Your task to perform on an android device: turn on improve location accuracy Image 0: 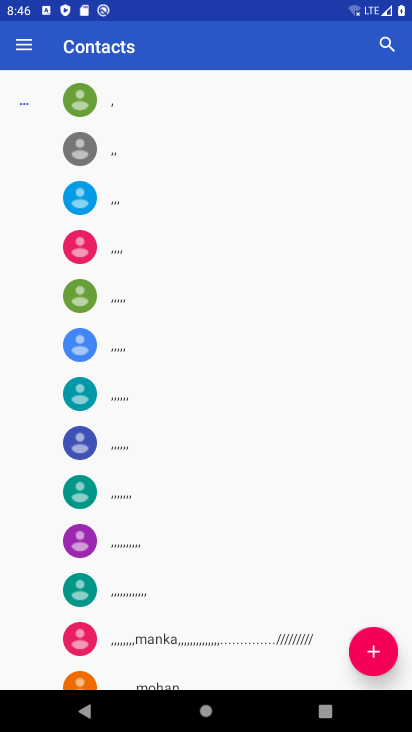
Step 0: press home button
Your task to perform on an android device: turn on improve location accuracy Image 1: 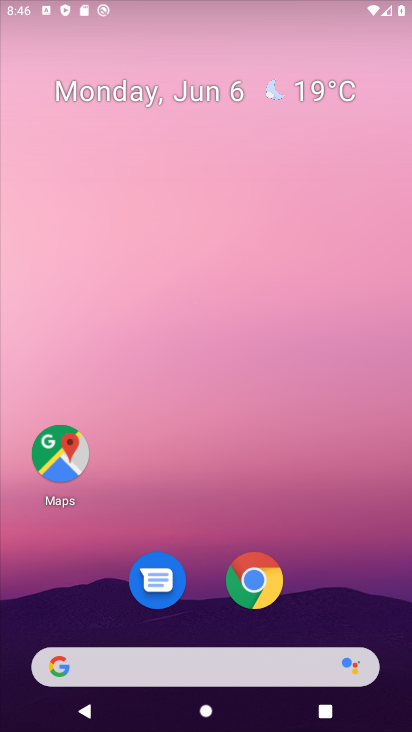
Step 1: drag from (289, 449) to (324, 93)
Your task to perform on an android device: turn on improve location accuracy Image 2: 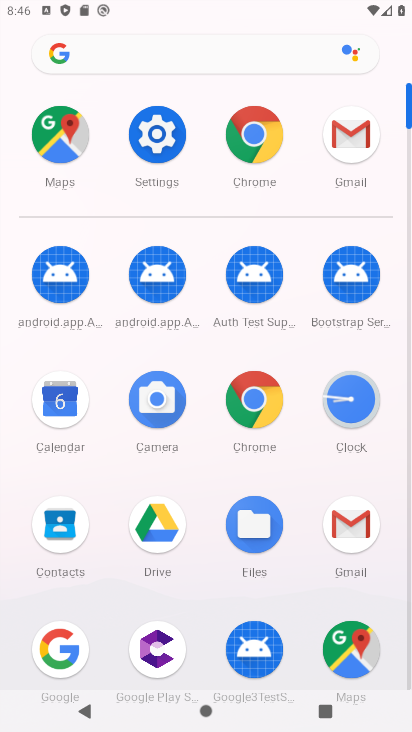
Step 2: drag from (329, 438) to (354, 303)
Your task to perform on an android device: turn on improve location accuracy Image 3: 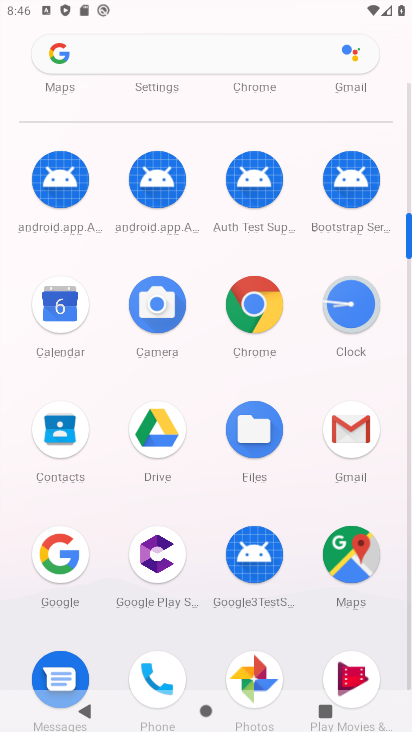
Step 3: drag from (274, 621) to (273, 208)
Your task to perform on an android device: turn on improve location accuracy Image 4: 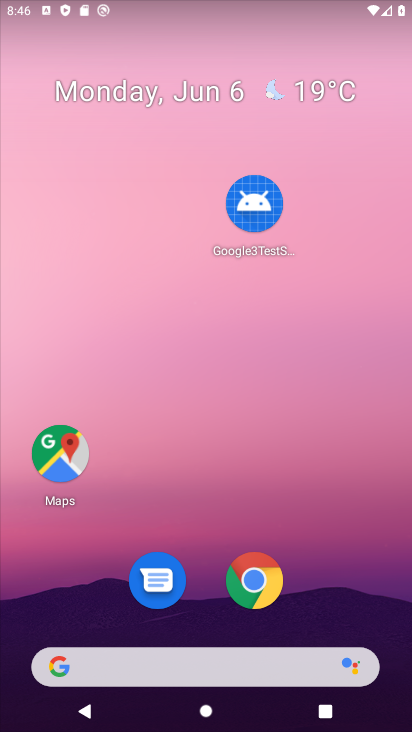
Step 4: press home button
Your task to perform on an android device: turn on improve location accuracy Image 5: 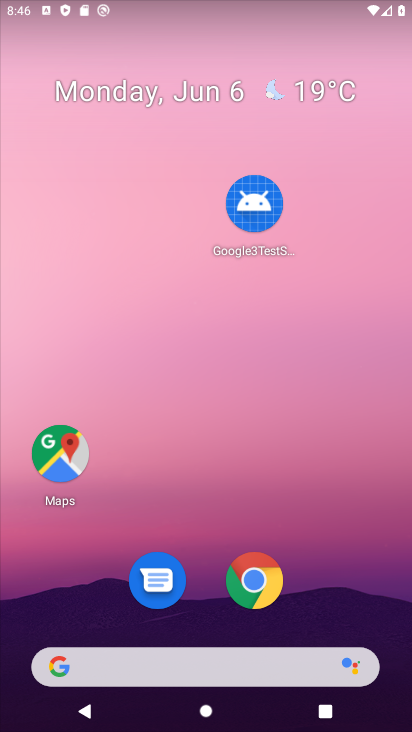
Step 5: drag from (195, 676) to (275, 41)
Your task to perform on an android device: turn on improve location accuracy Image 6: 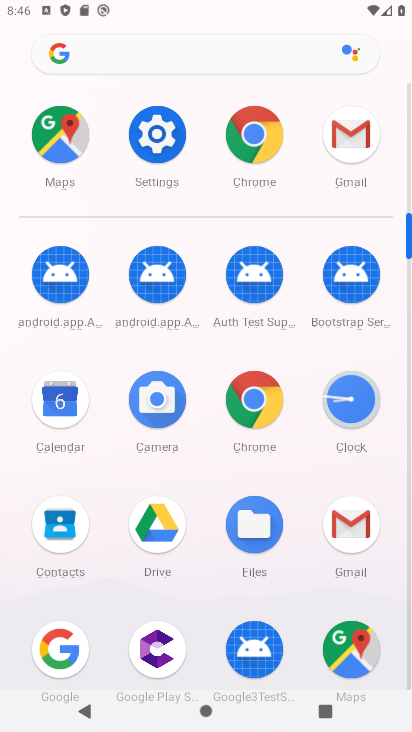
Step 6: click (161, 134)
Your task to perform on an android device: turn on improve location accuracy Image 7: 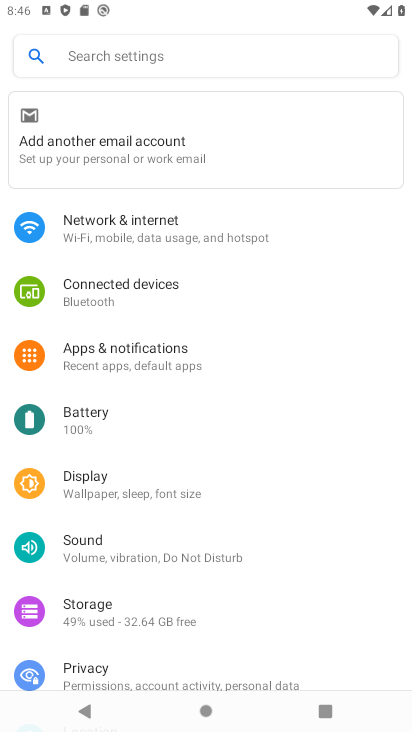
Step 7: drag from (162, 604) to (178, 248)
Your task to perform on an android device: turn on improve location accuracy Image 8: 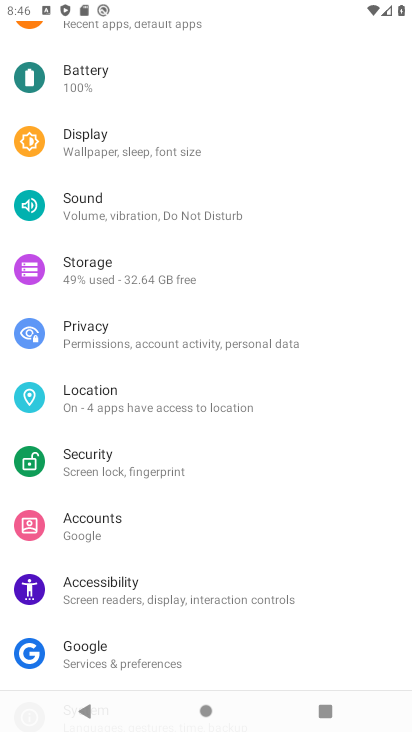
Step 8: click (175, 404)
Your task to perform on an android device: turn on improve location accuracy Image 9: 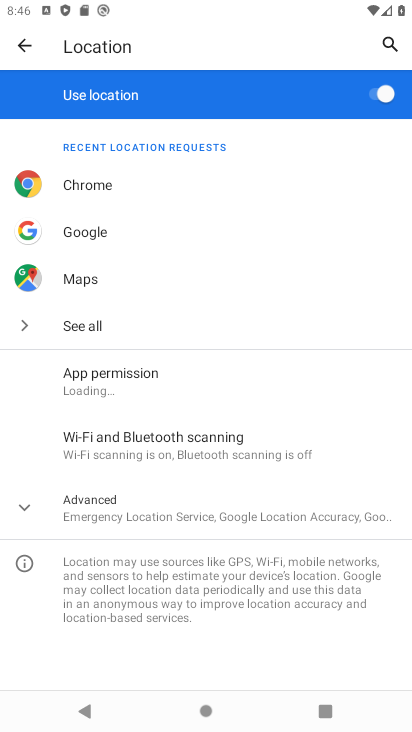
Step 9: click (156, 504)
Your task to perform on an android device: turn on improve location accuracy Image 10: 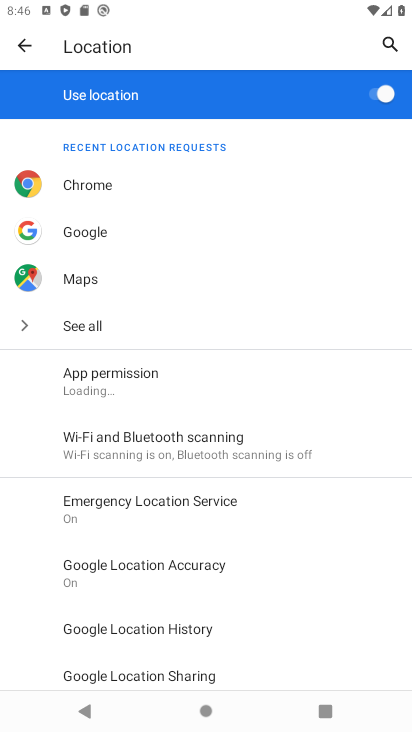
Step 10: click (209, 577)
Your task to perform on an android device: turn on improve location accuracy Image 11: 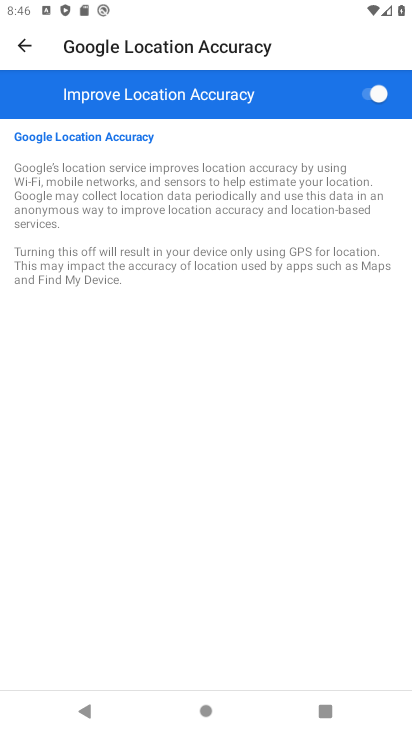
Step 11: task complete